Your task to perform on an android device: clear all cookies in the chrome app Image 0: 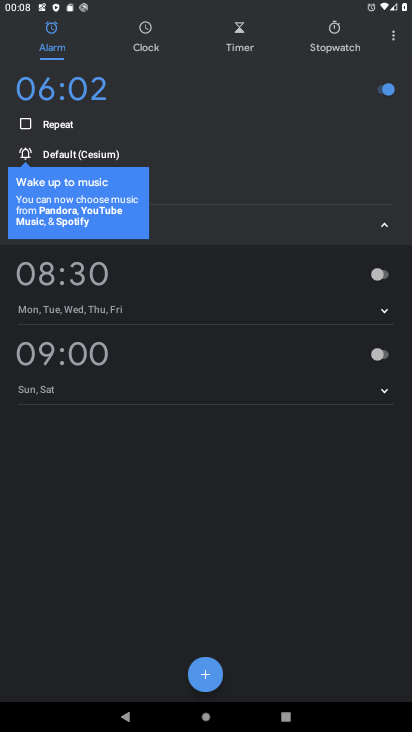
Step 0: press home button
Your task to perform on an android device: clear all cookies in the chrome app Image 1: 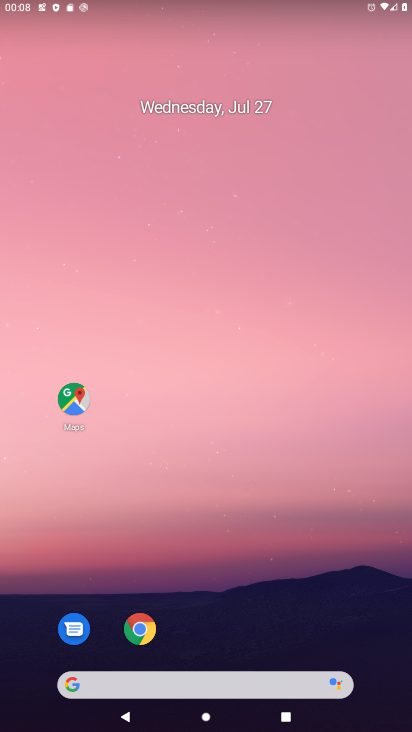
Step 1: click (137, 631)
Your task to perform on an android device: clear all cookies in the chrome app Image 2: 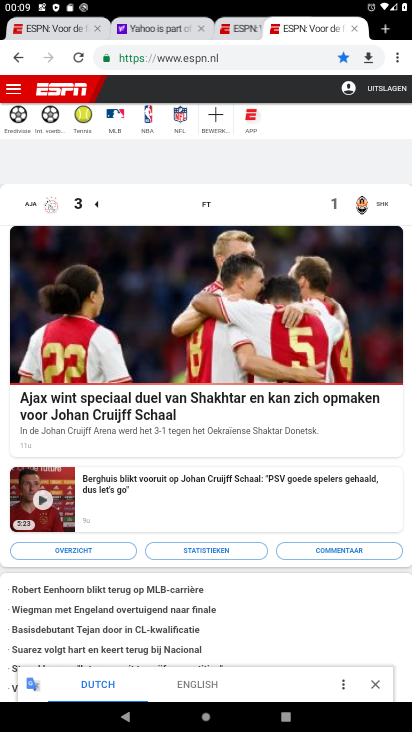
Step 2: click (401, 60)
Your task to perform on an android device: clear all cookies in the chrome app Image 3: 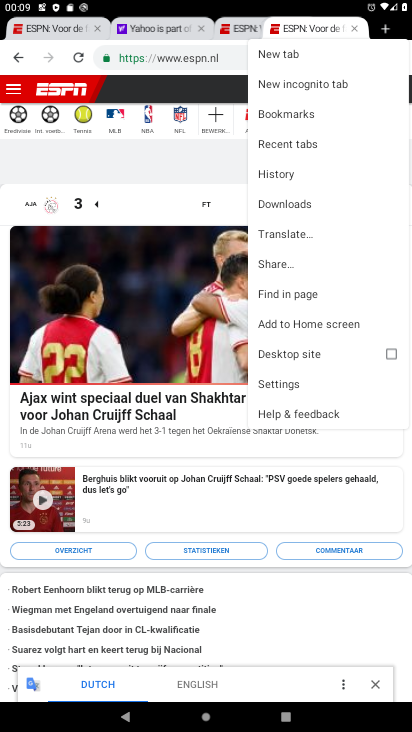
Step 3: click (276, 177)
Your task to perform on an android device: clear all cookies in the chrome app Image 4: 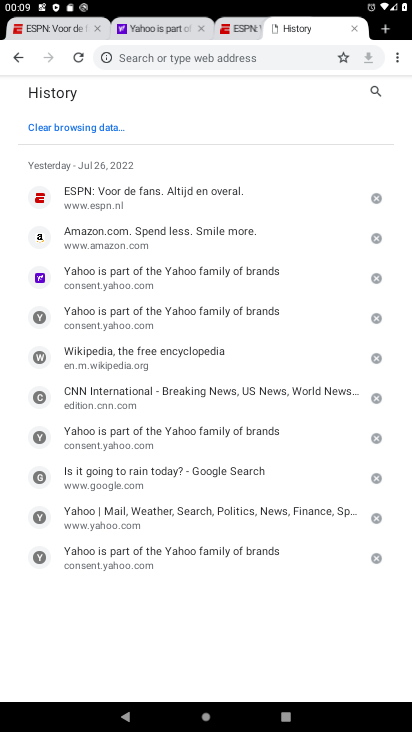
Step 4: click (88, 124)
Your task to perform on an android device: clear all cookies in the chrome app Image 5: 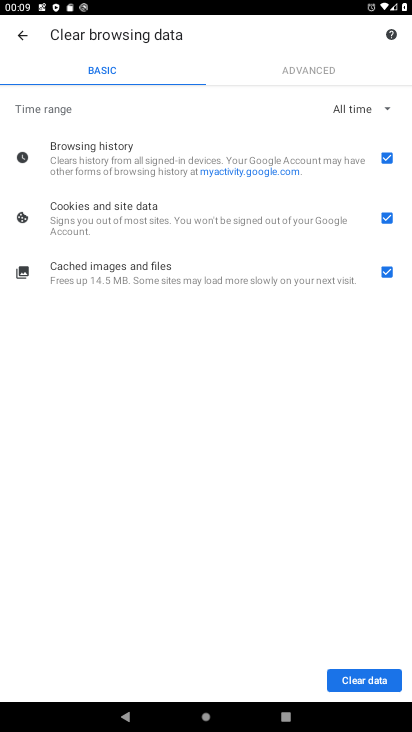
Step 5: click (387, 151)
Your task to perform on an android device: clear all cookies in the chrome app Image 6: 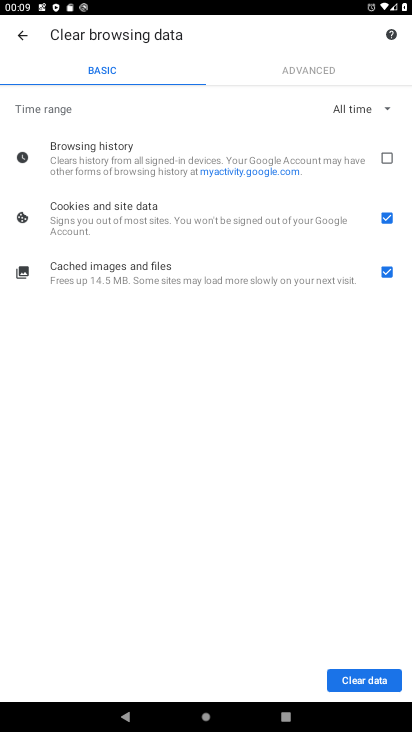
Step 6: click (386, 270)
Your task to perform on an android device: clear all cookies in the chrome app Image 7: 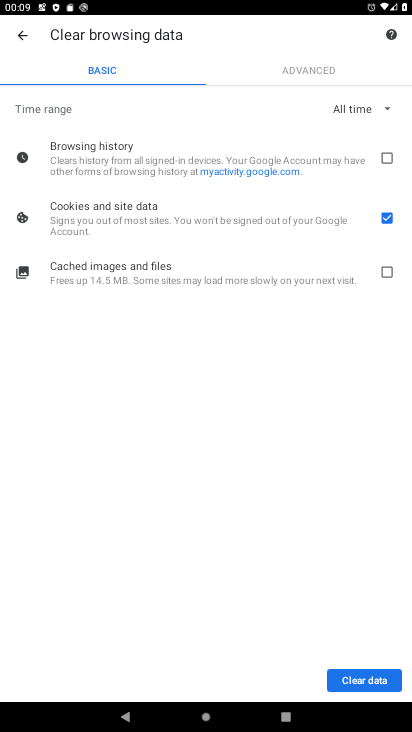
Step 7: task complete